Your task to perform on an android device: Open Google Maps and go to "Timeline" Image 0: 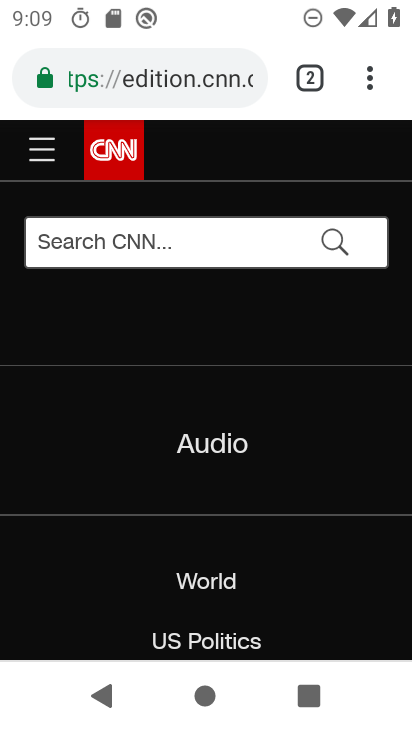
Step 0: press home button
Your task to perform on an android device: Open Google Maps and go to "Timeline" Image 1: 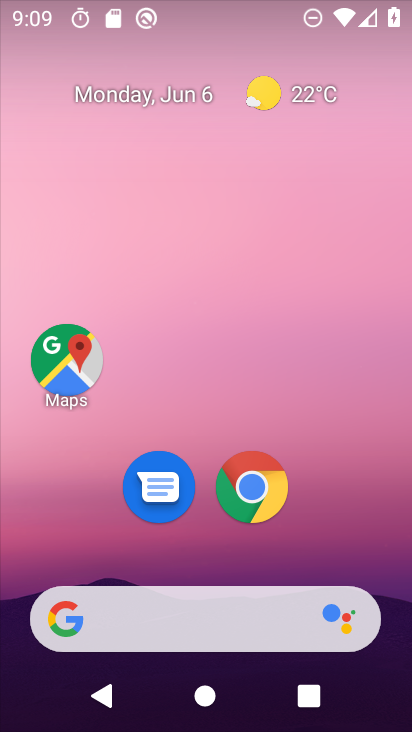
Step 1: drag from (395, 624) to (285, 4)
Your task to perform on an android device: Open Google Maps and go to "Timeline" Image 2: 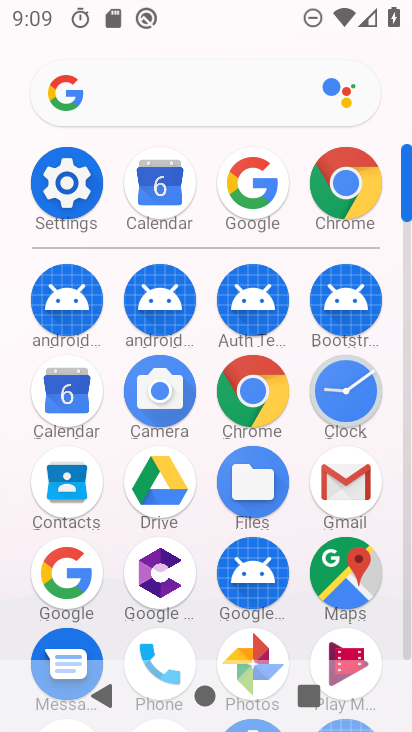
Step 2: click (345, 579)
Your task to perform on an android device: Open Google Maps and go to "Timeline" Image 3: 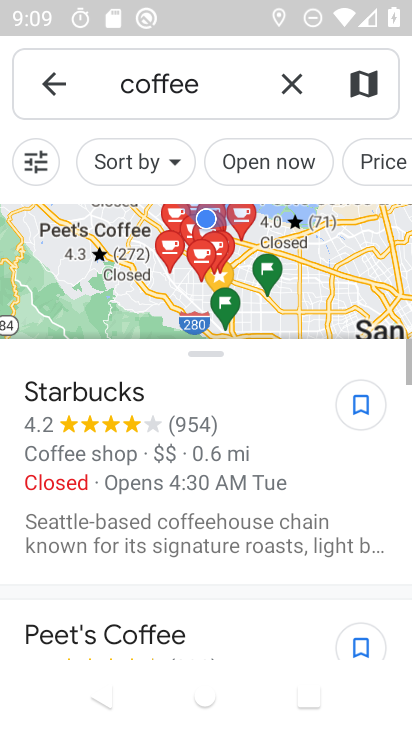
Step 3: click (303, 85)
Your task to perform on an android device: Open Google Maps and go to "Timeline" Image 4: 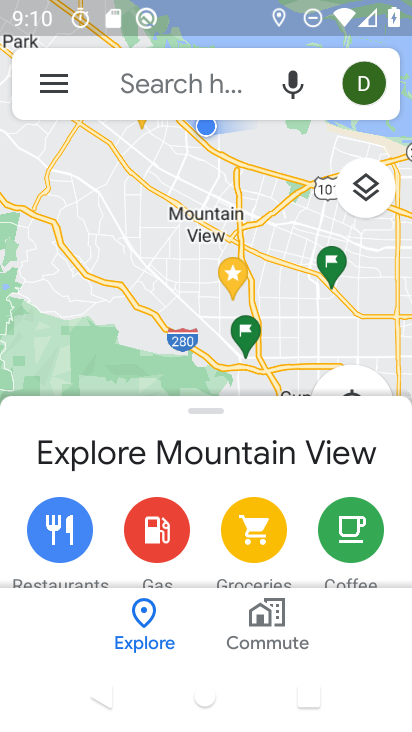
Step 4: click (53, 69)
Your task to perform on an android device: Open Google Maps and go to "Timeline" Image 5: 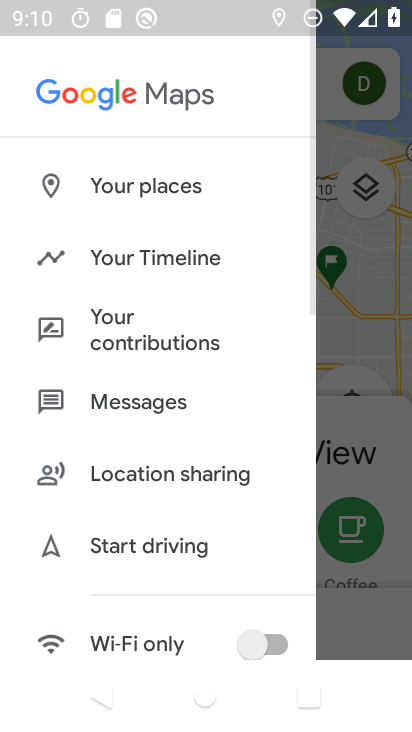
Step 5: click (202, 243)
Your task to perform on an android device: Open Google Maps and go to "Timeline" Image 6: 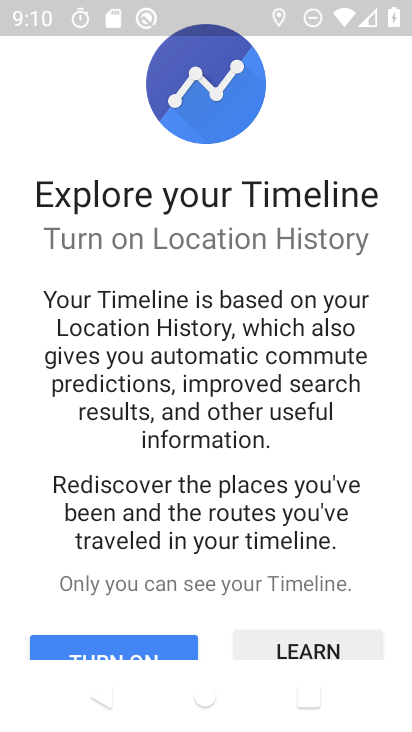
Step 6: task complete